Your task to perform on an android device: turn pop-ups on in chrome Image 0: 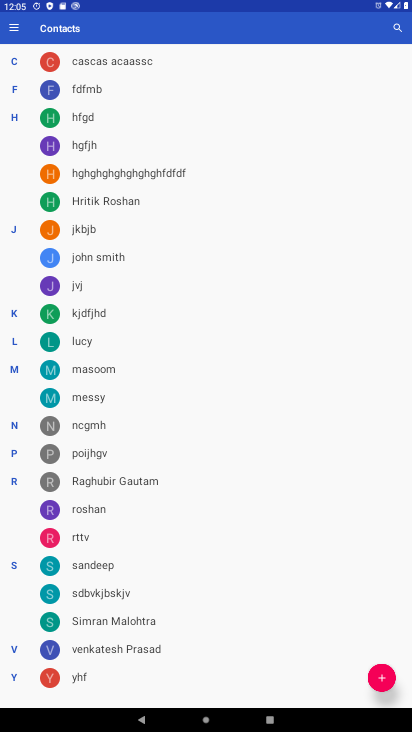
Step 0: press home button
Your task to perform on an android device: turn pop-ups on in chrome Image 1: 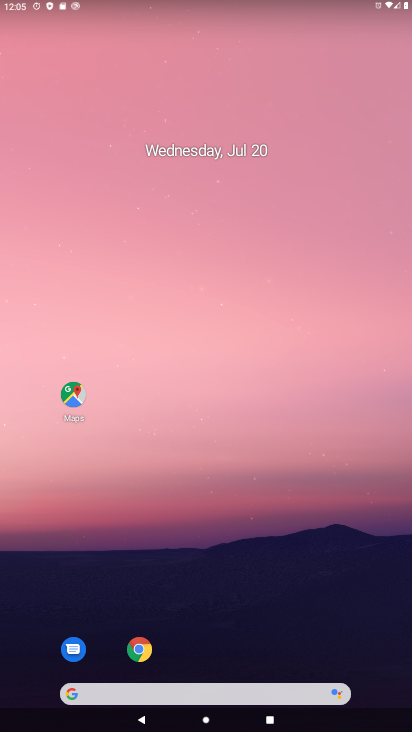
Step 1: drag from (231, 705) to (231, 167)
Your task to perform on an android device: turn pop-ups on in chrome Image 2: 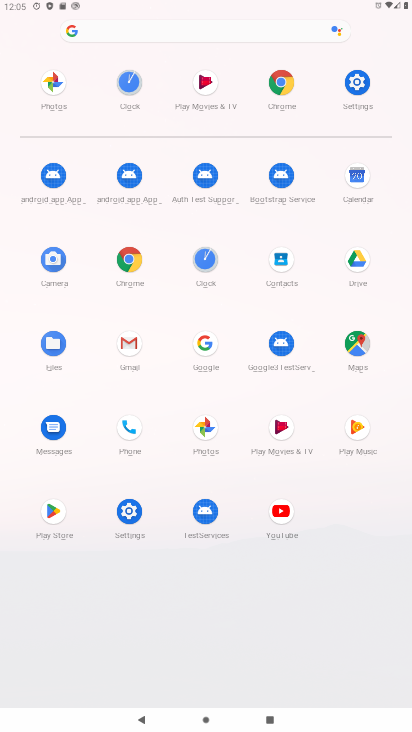
Step 2: click (124, 256)
Your task to perform on an android device: turn pop-ups on in chrome Image 3: 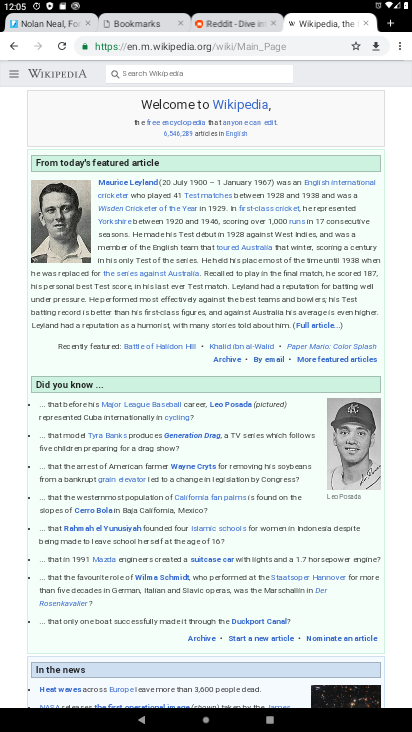
Step 3: click (401, 56)
Your task to perform on an android device: turn pop-ups on in chrome Image 4: 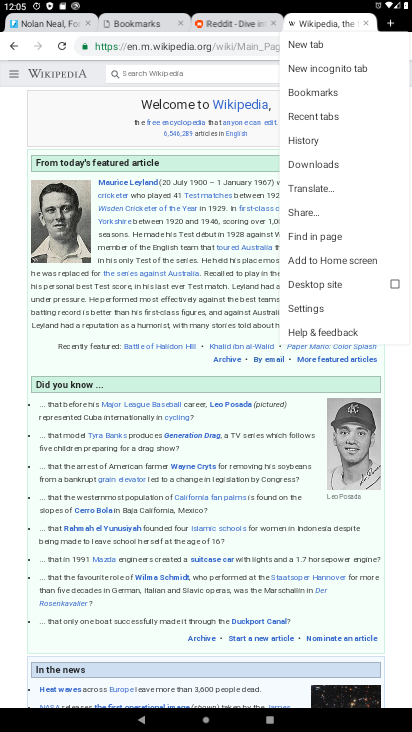
Step 4: click (309, 307)
Your task to perform on an android device: turn pop-ups on in chrome Image 5: 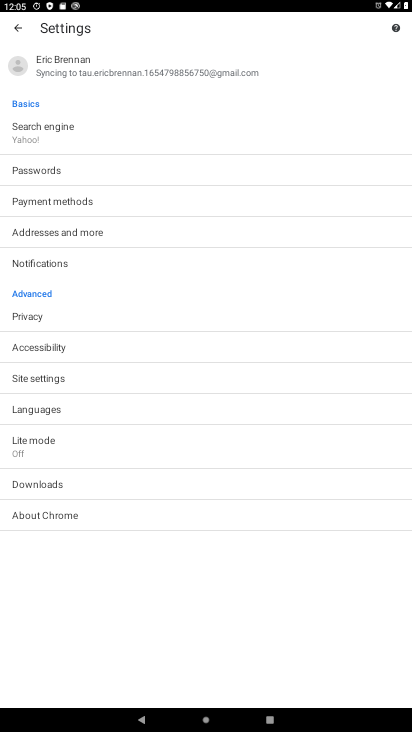
Step 5: click (33, 375)
Your task to perform on an android device: turn pop-ups on in chrome Image 6: 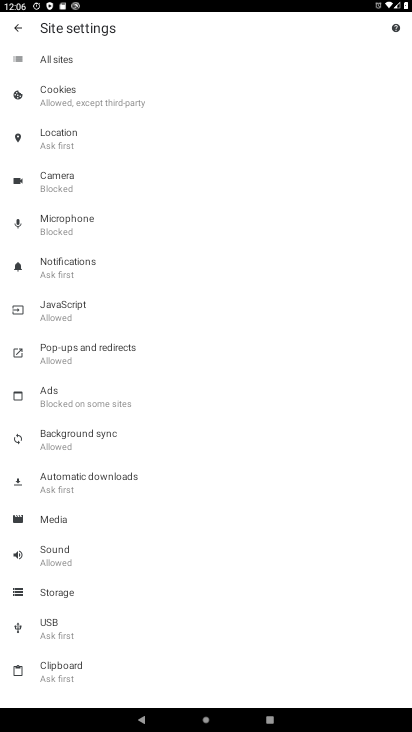
Step 6: click (89, 352)
Your task to perform on an android device: turn pop-ups on in chrome Image 7: 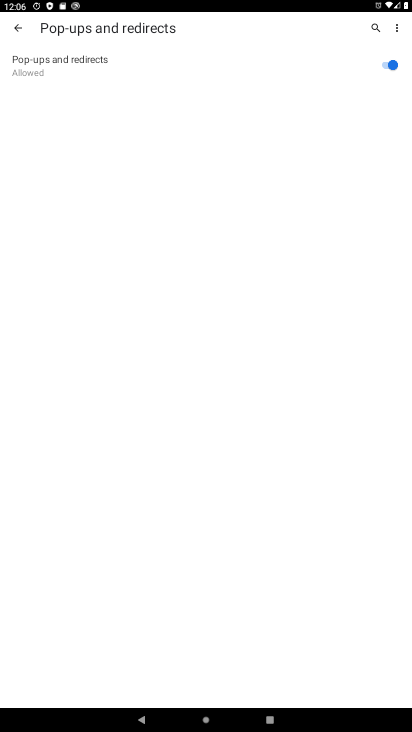
Step 7: task complete